Your task to perform on an android device: Open ESPN.com Image 0: 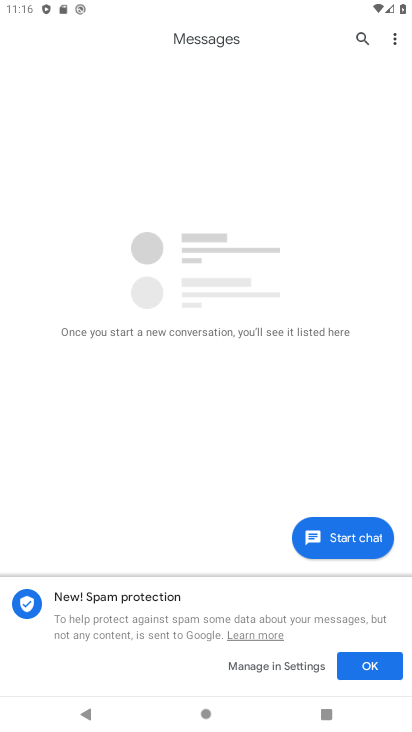
Step 0: press home button
Your task to perform on an android device: Open ESPN.com Image 1: 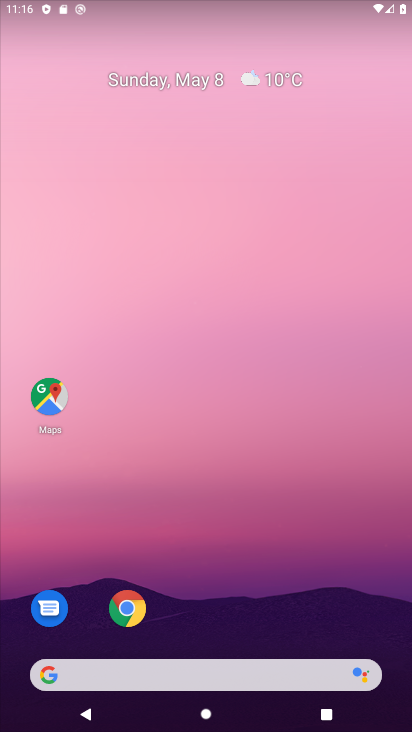
Step 1: click (134, 606)
Your task to perform on an android device: Open ESPN.com Image 2: 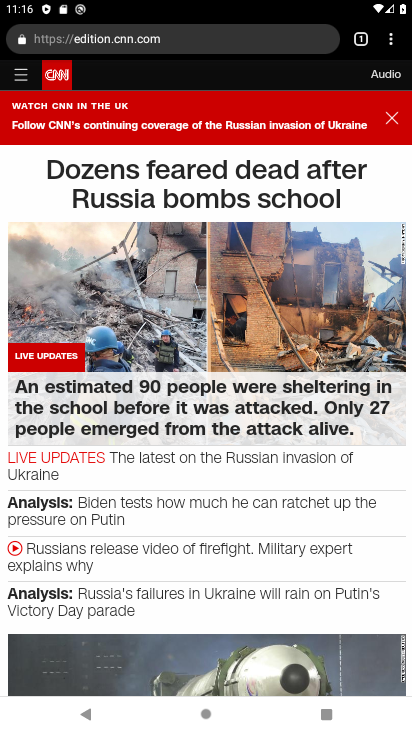
Step 2: click (211, 42)
Your task to perform on an android device: Open ESPN.com Image 3: 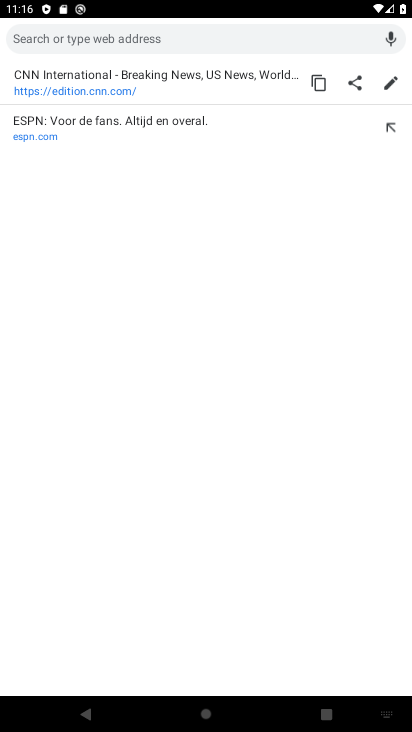
Step 3: click (169, 124)
Your task to perform on an android device: Open ESPN.com Image 4: 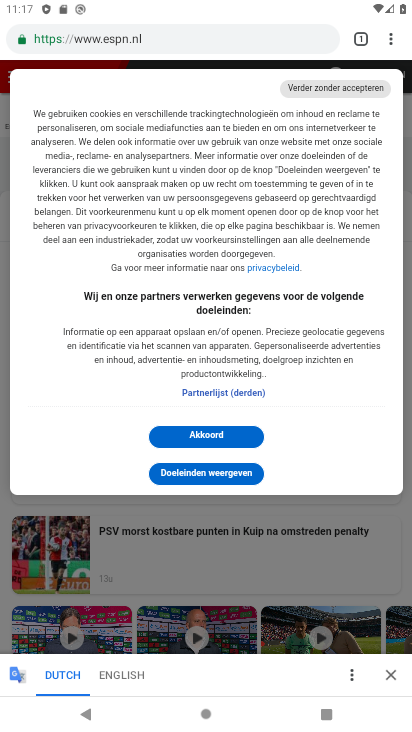
Step 4: task complete